Your task to perform on an android device: Go to Reddit.com Image 0: 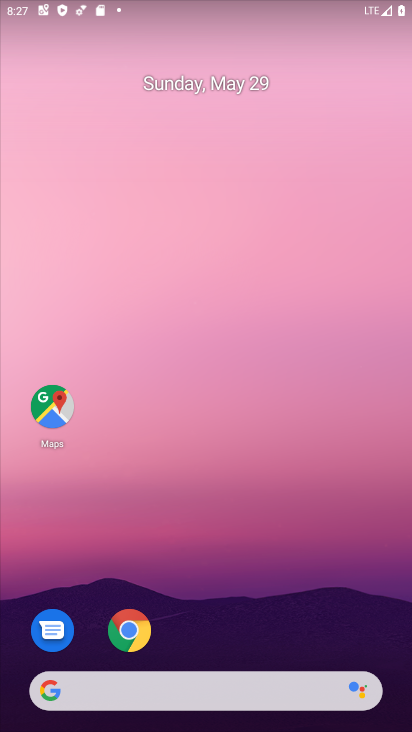
Step 0: click (145, 647)
Your task to perform on an android device: Go to Reddit.com Image 1: 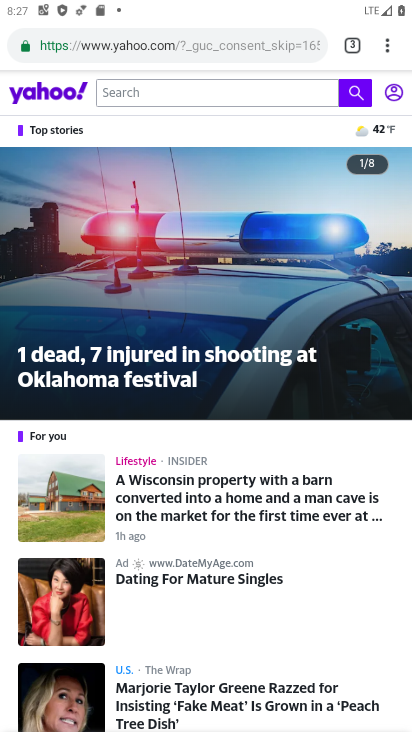
Step 1: click (358, 35)
Your task to perform on an android device: Go to Reddit.com Image 2: 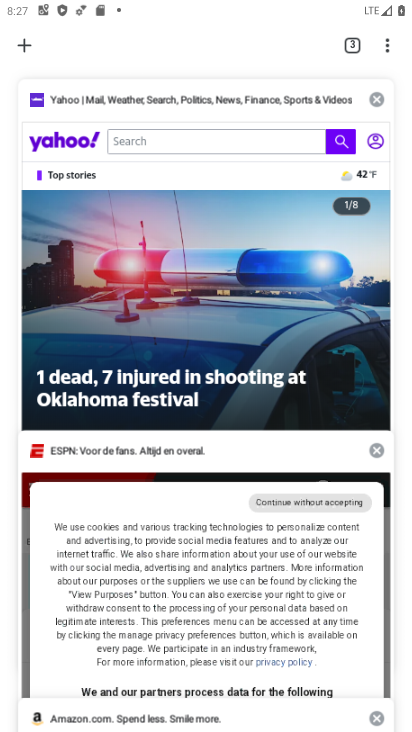
Step 2: click (13, 51)
Your task to perform on an android device: Go to Reddit.com Image 3: 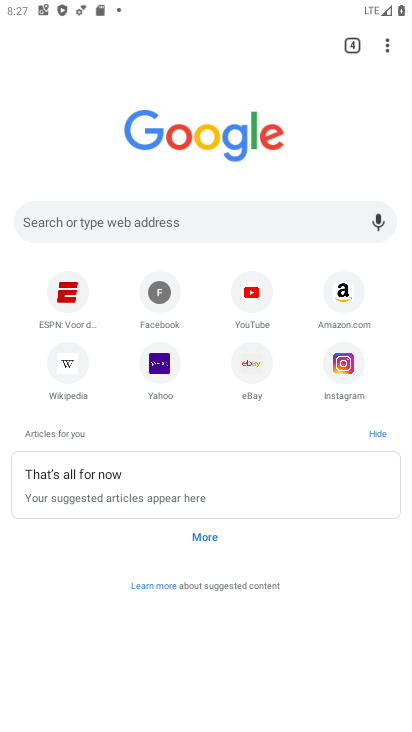
Step 3: click (135, 223)
Your task to perform on an android device: Go to Reddit.com Image 4: 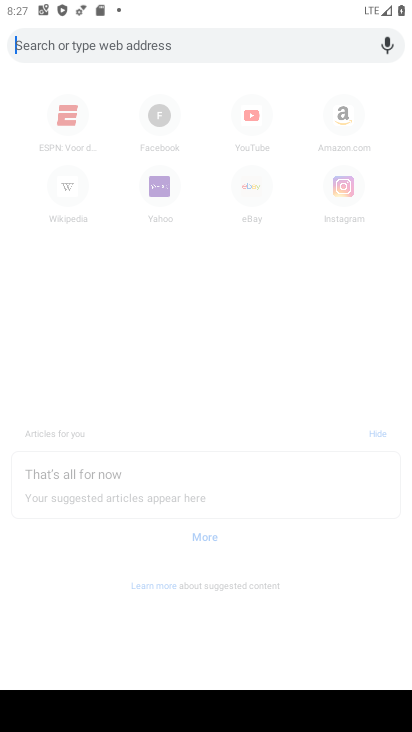
Step 4: type "reddit"
Your task to perform on an android device: Go to Reddit.com Image 5: 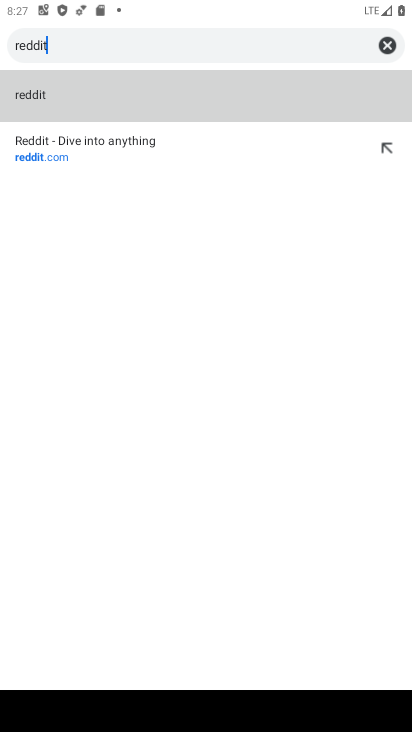
Step 5: click (194, 171)
Your task to perform on an android device: Go to Reddit.com Image 6: 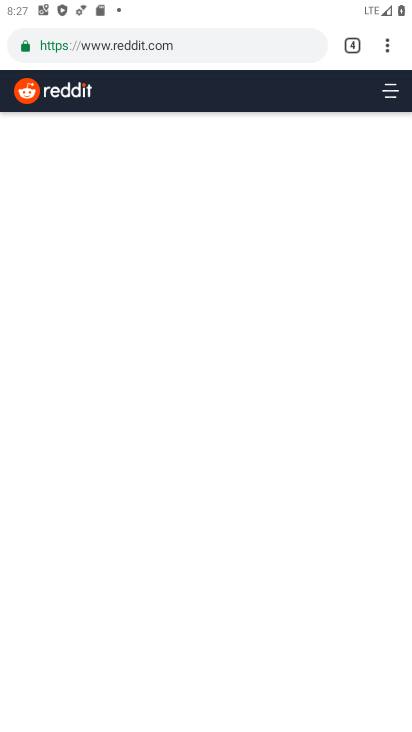
Step 6: task complete